Your task to perform on an android device: turn on wifi Image 0: 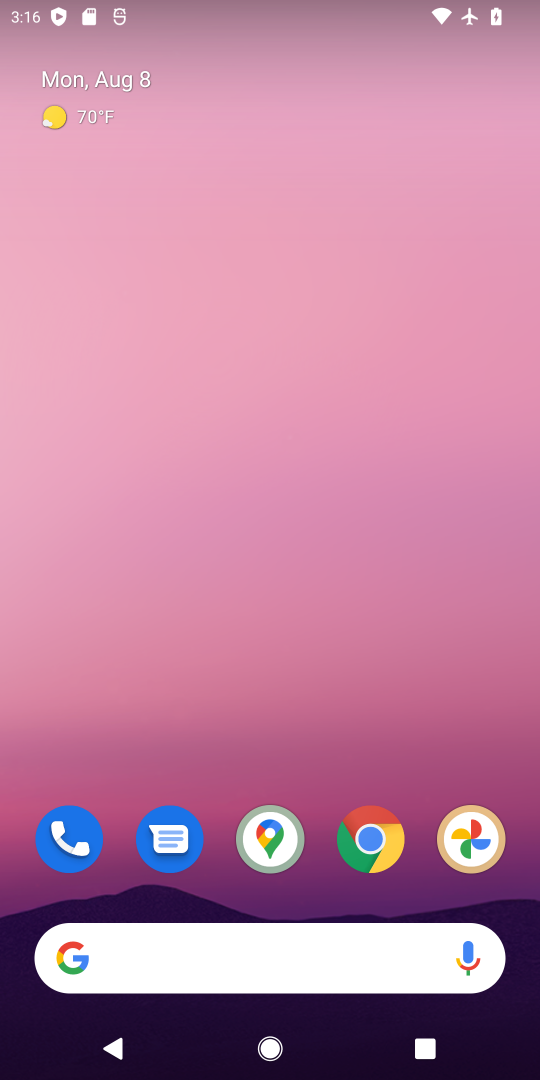
Step 0: press home button
Your task to perform on an android device: turn on wifi Image 1: 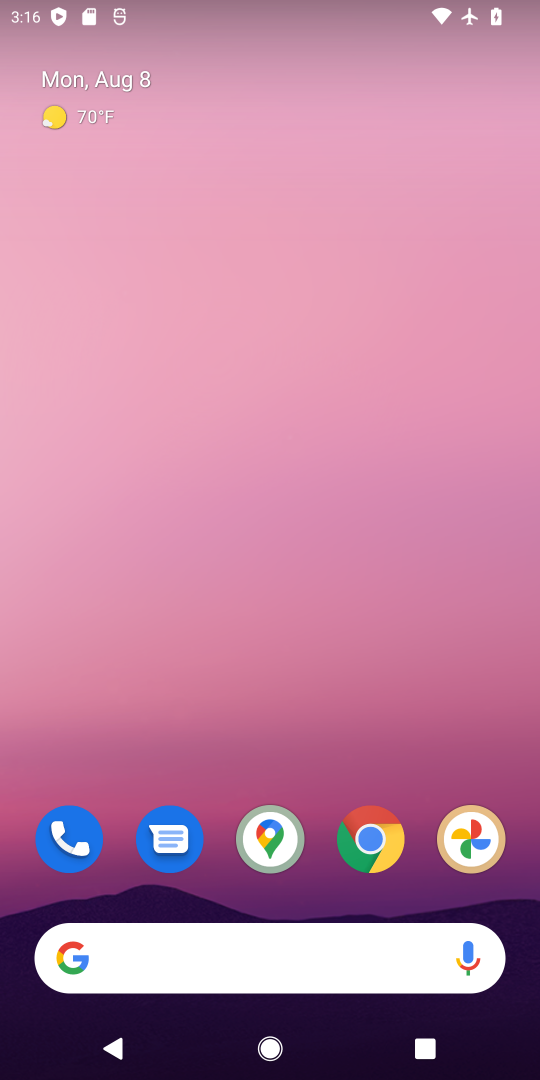
Step 1: drag from (400, 741) to (434, 223)
Your task to perform on an android device: turn on wifi Image 2: 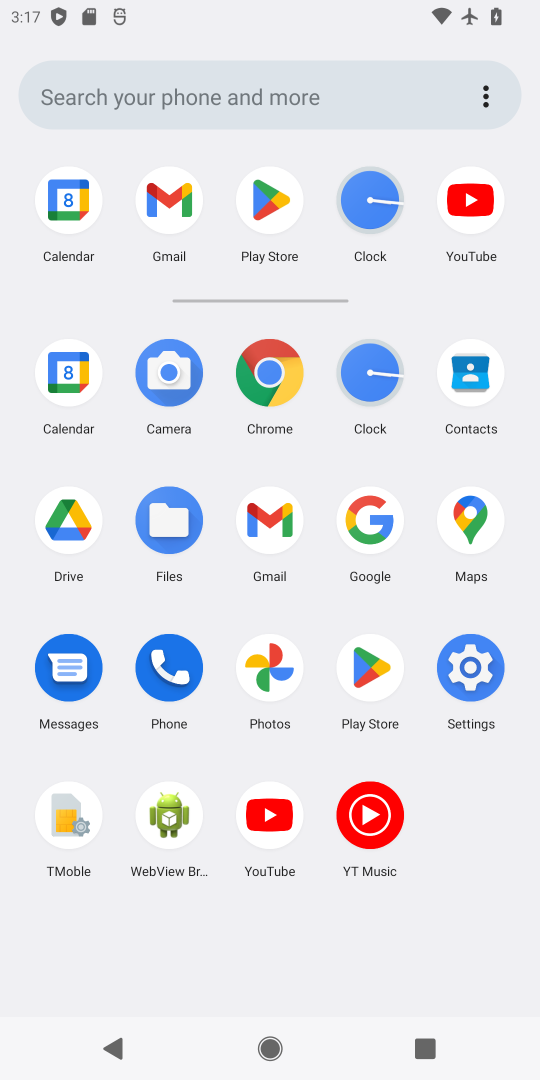
Step 2: click (478, 662)
Your task to perform on an android device: turn on wifi Image 3: 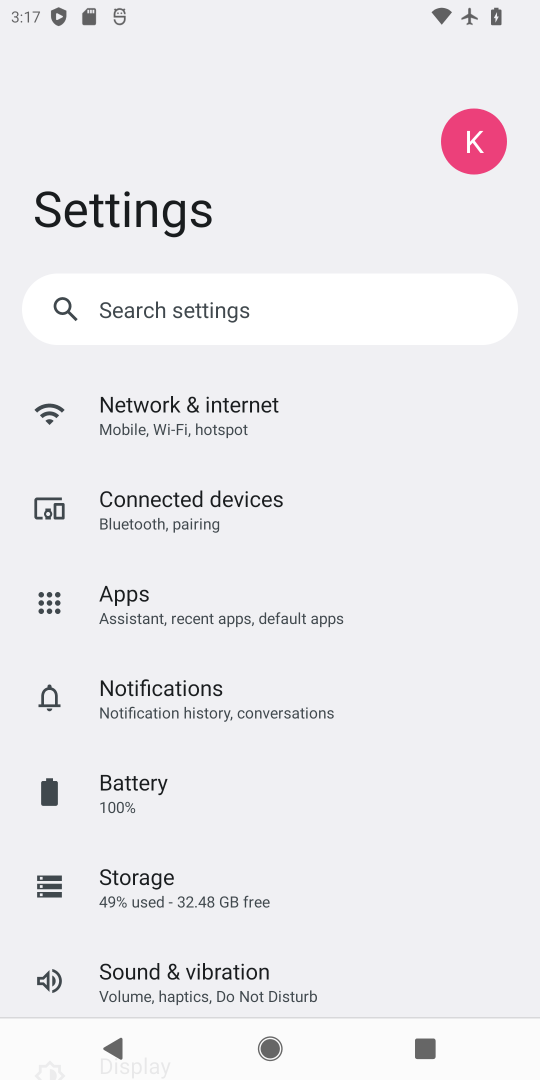
Step 3: click (226, 412)
Your task to perform on an android device: turn on wifi Image 4: 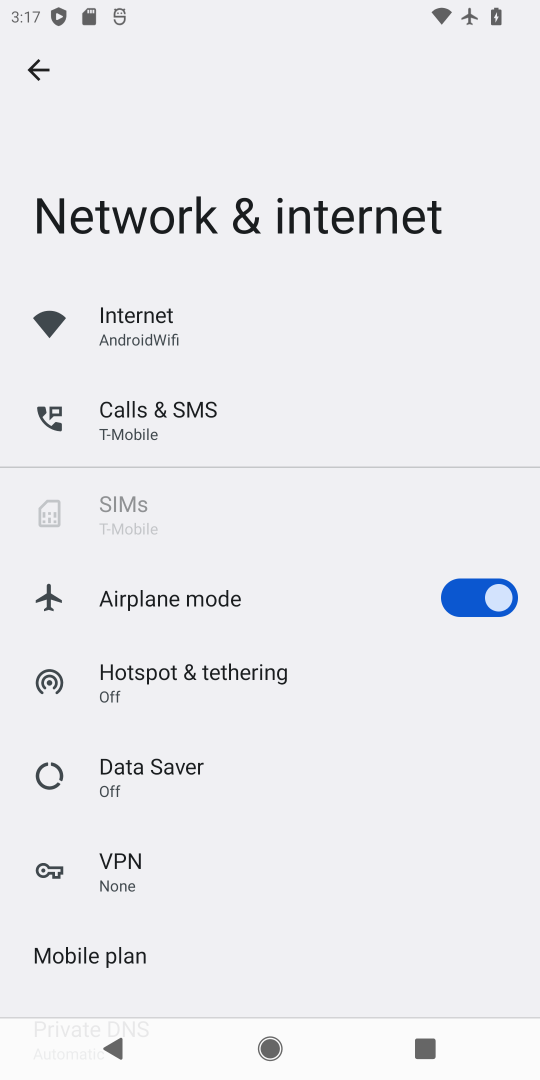
Step 4: click (172, 321)
Your task to perform on an android device: turn on wifi Image 5: 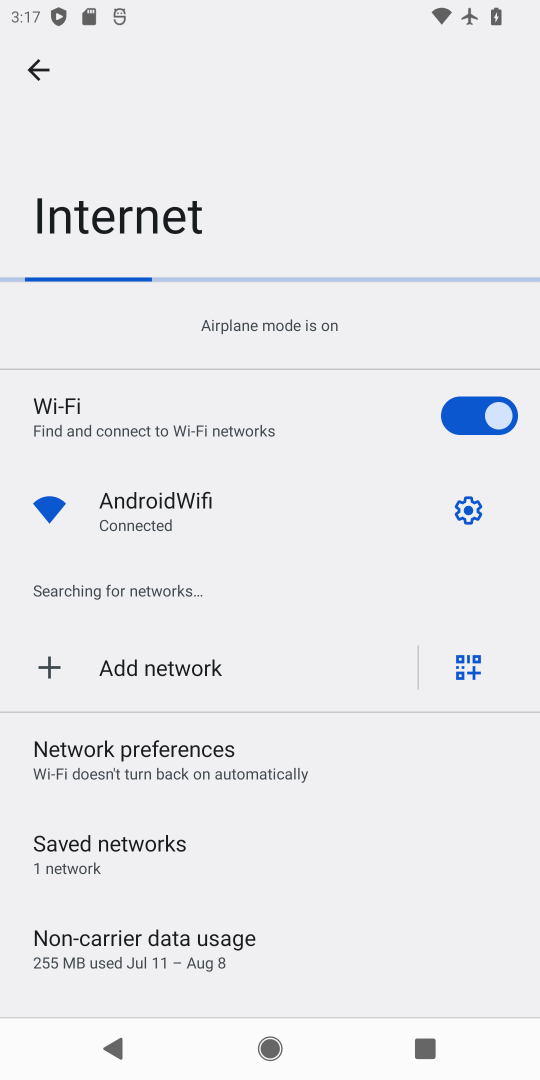
Step 5: task complete